Your task to perform on an android device: empty trash in google photos Image 0: 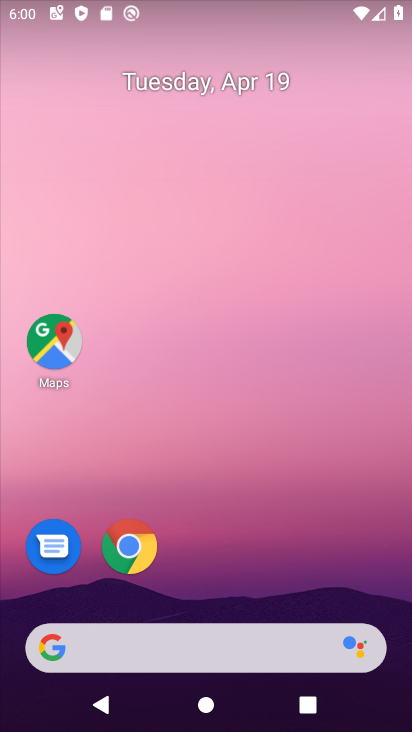
Step 0: drag from (278, 572) to (278, 71)
Your task to perform on an android device: empty trash in google photos Image 1: 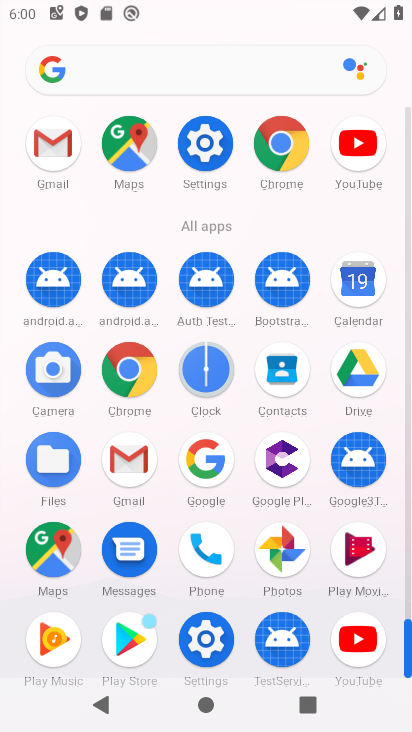
Step 1: click (295, 552)
Your task to perform on an android device: empty trash in google photos Image 2: 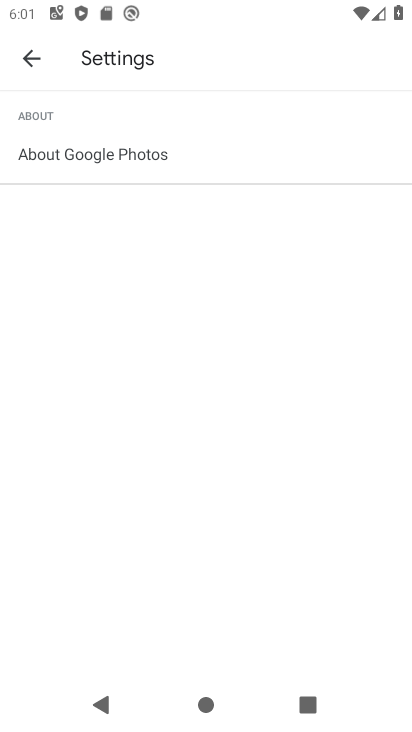
Step 2: click (38, 69)
Your task to perform on an android device: empty trash in google photos Image 3: 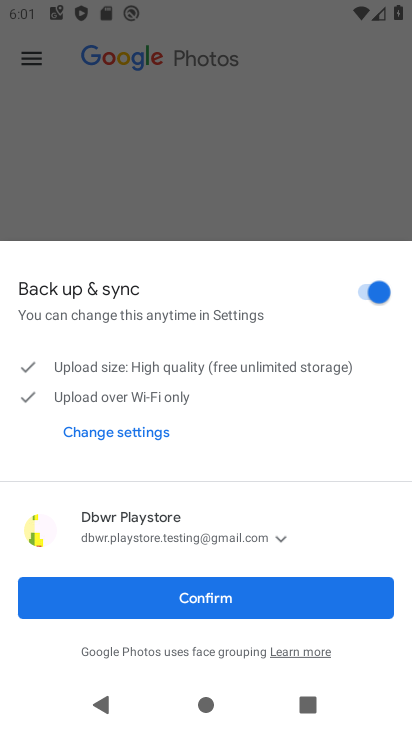
Step 3: click (33, 67)
Your task to perform on an android device: empty trash in google photos Image 4: 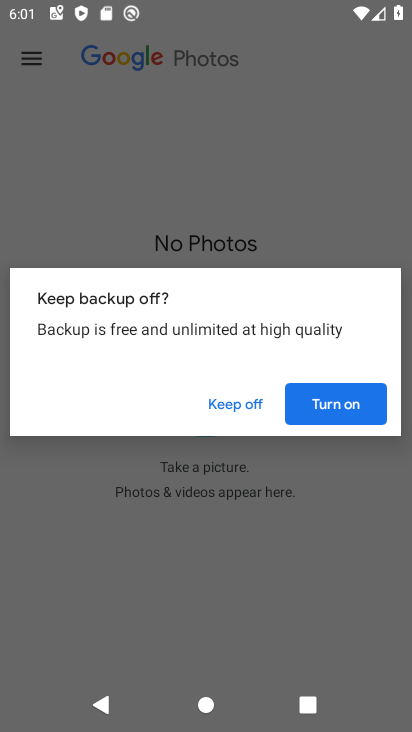
Step 4: click (237, 406)
Your task to perform on an android device: empty trash in google photos Image 5: 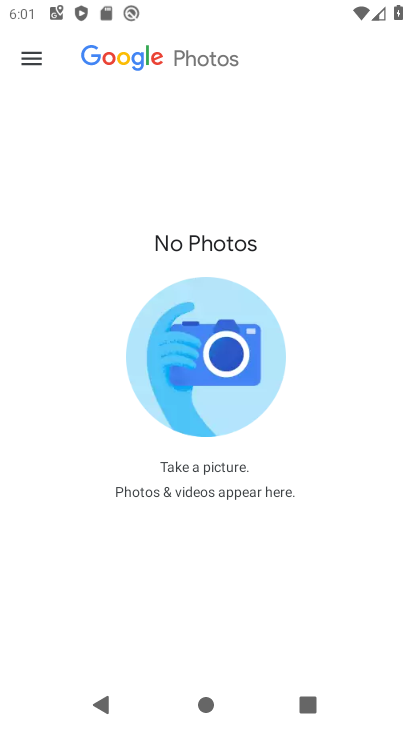
Step 5: click (44, 59)
Your task to perform on an android device: empty trash in google photos Image 6: 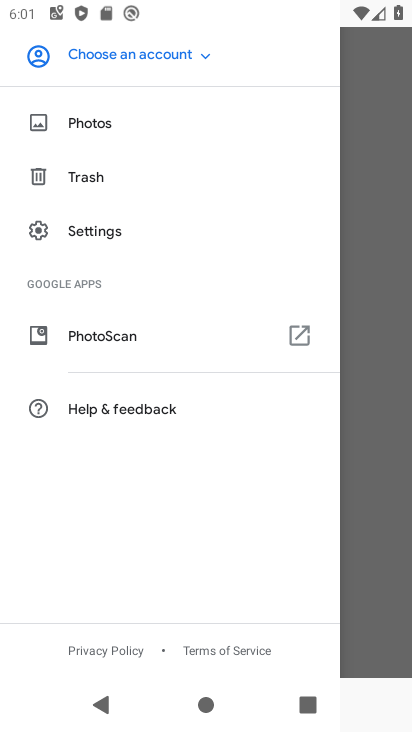
Step 6: click (72, 182)
Your task to perform on an android device: empty trash in google photos Image 7: 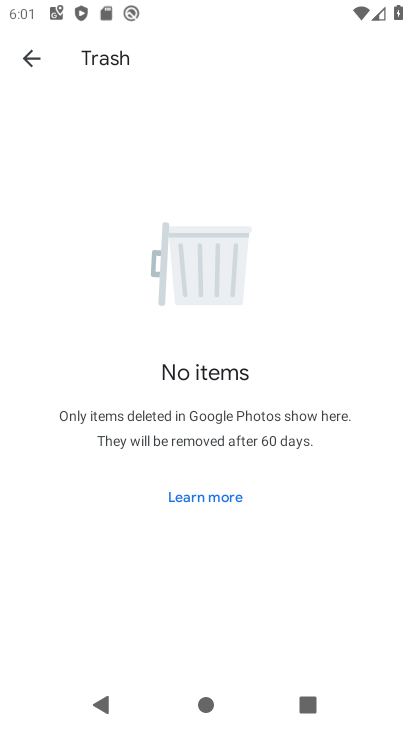
Step 7: task complete